Your task to perform on an android device: Open privacy settings Image 0: 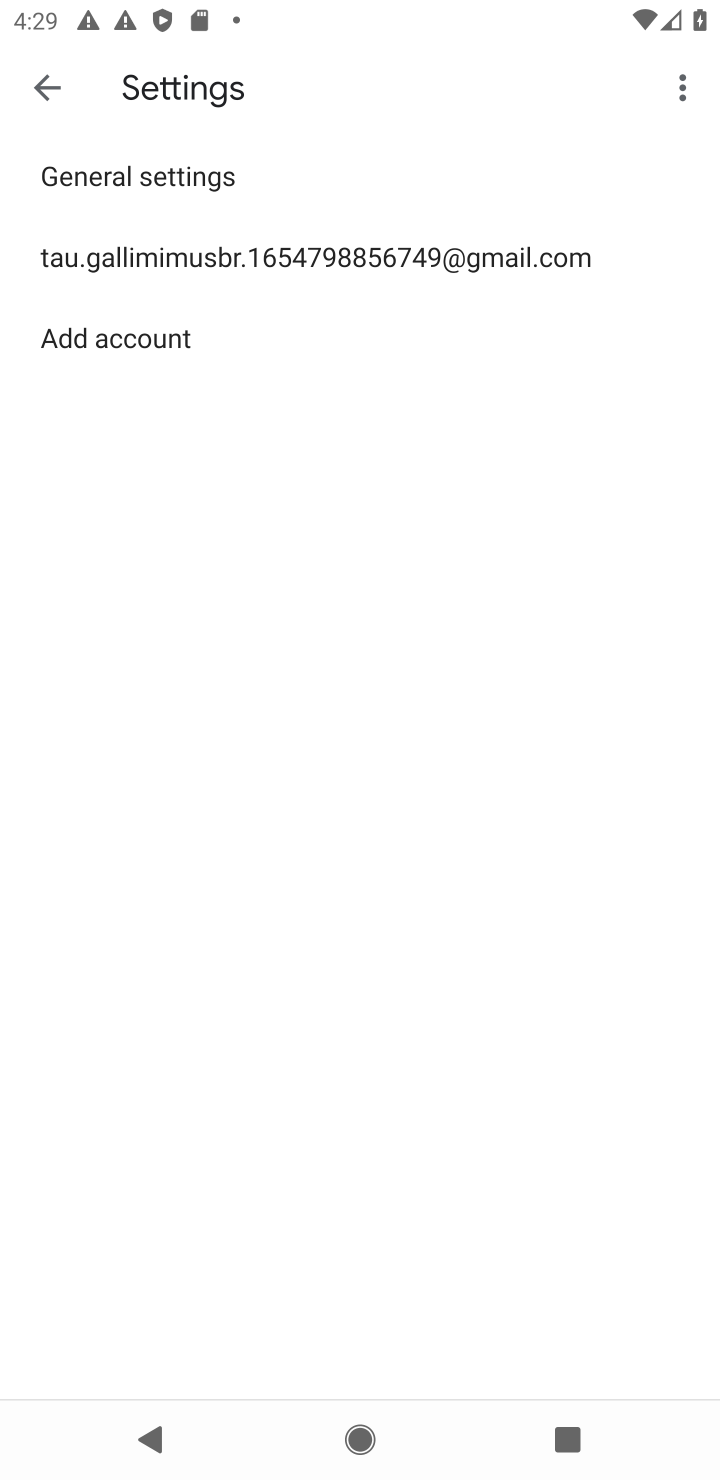
Step 0: press home button
Your task to perform on an android device: Open privacy settings Image 1: 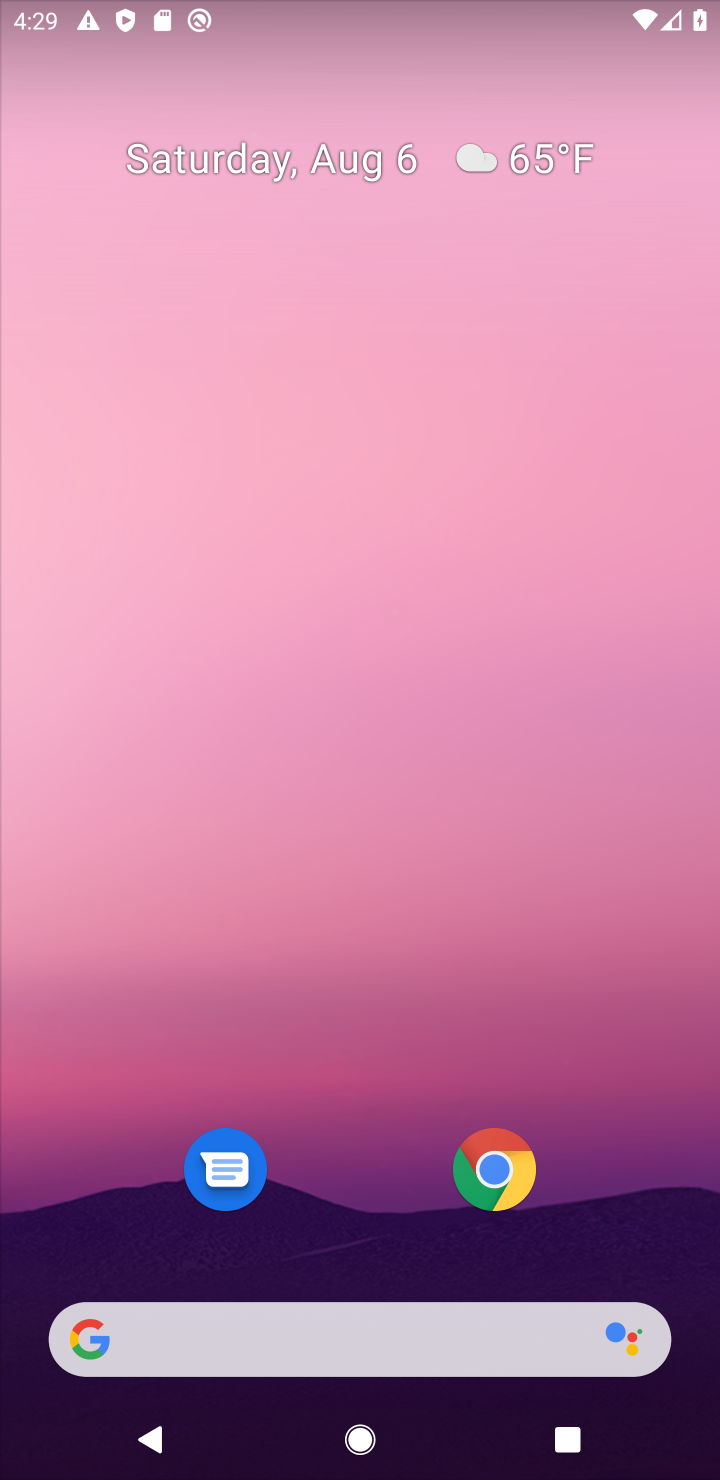
Step 1: drag from (391, 1200) to (390, 733)
Your task to perform on an android device: Open privacy settings Image 2: 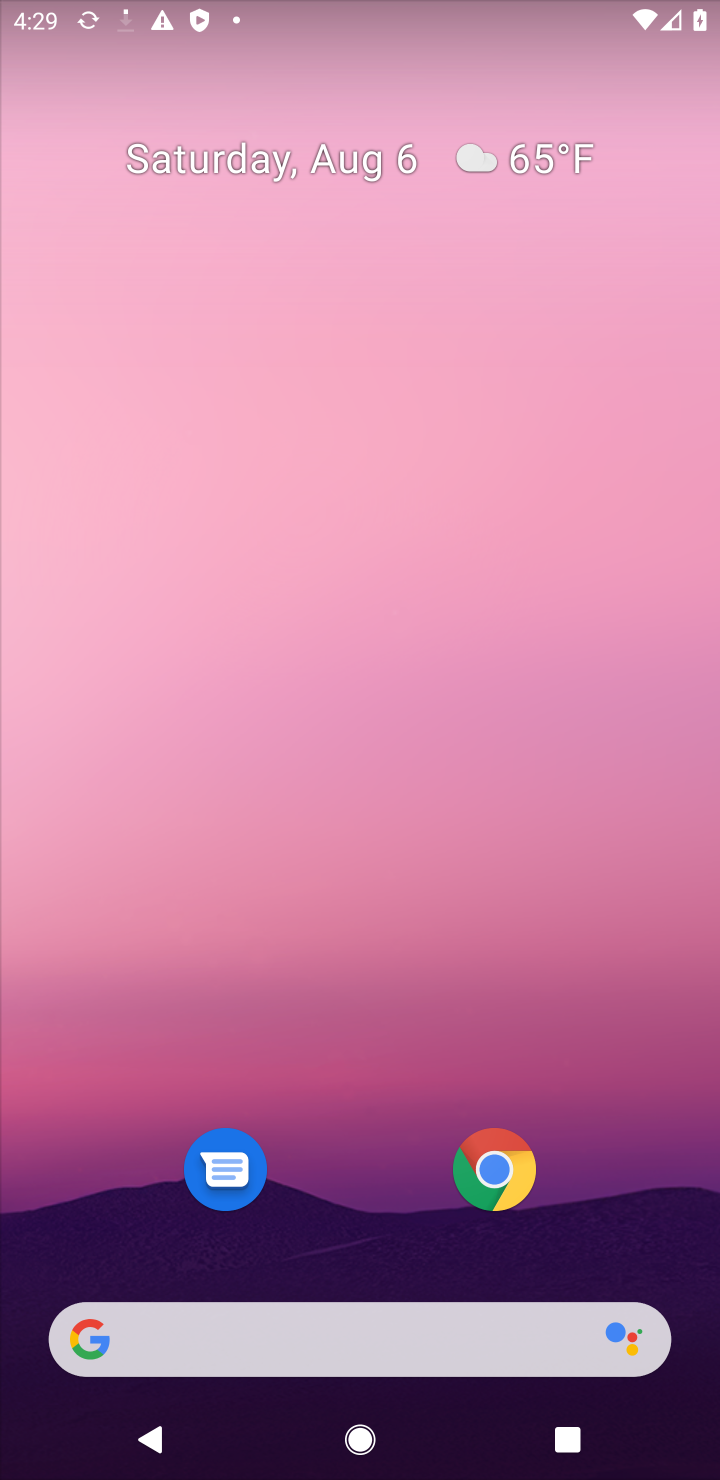
Step 2: drag from (324, 1227) to (290, 578)
Your task to perform on an android device: Open privacy settings Image 3: 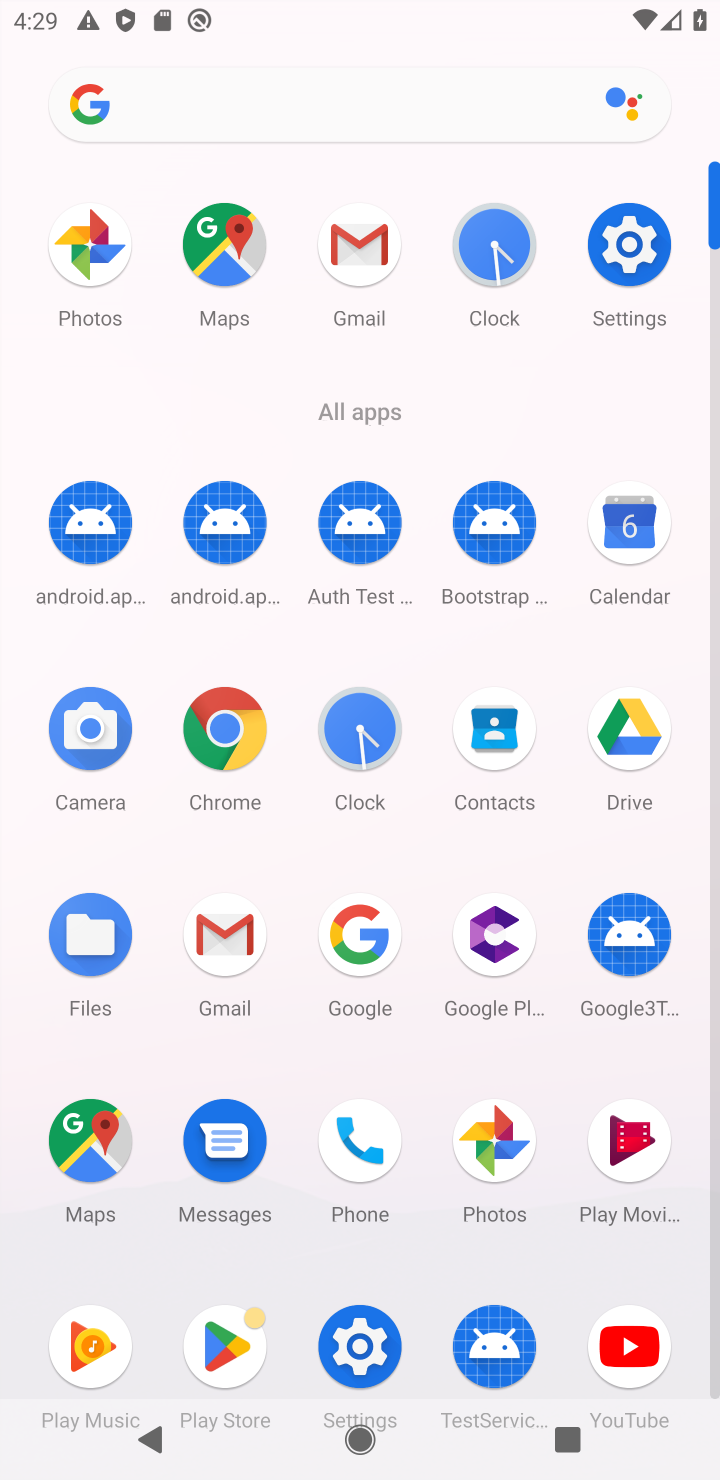
Step 3: click (645, 260)
Your task to perform on an android device: Open privacy settings Image 4: 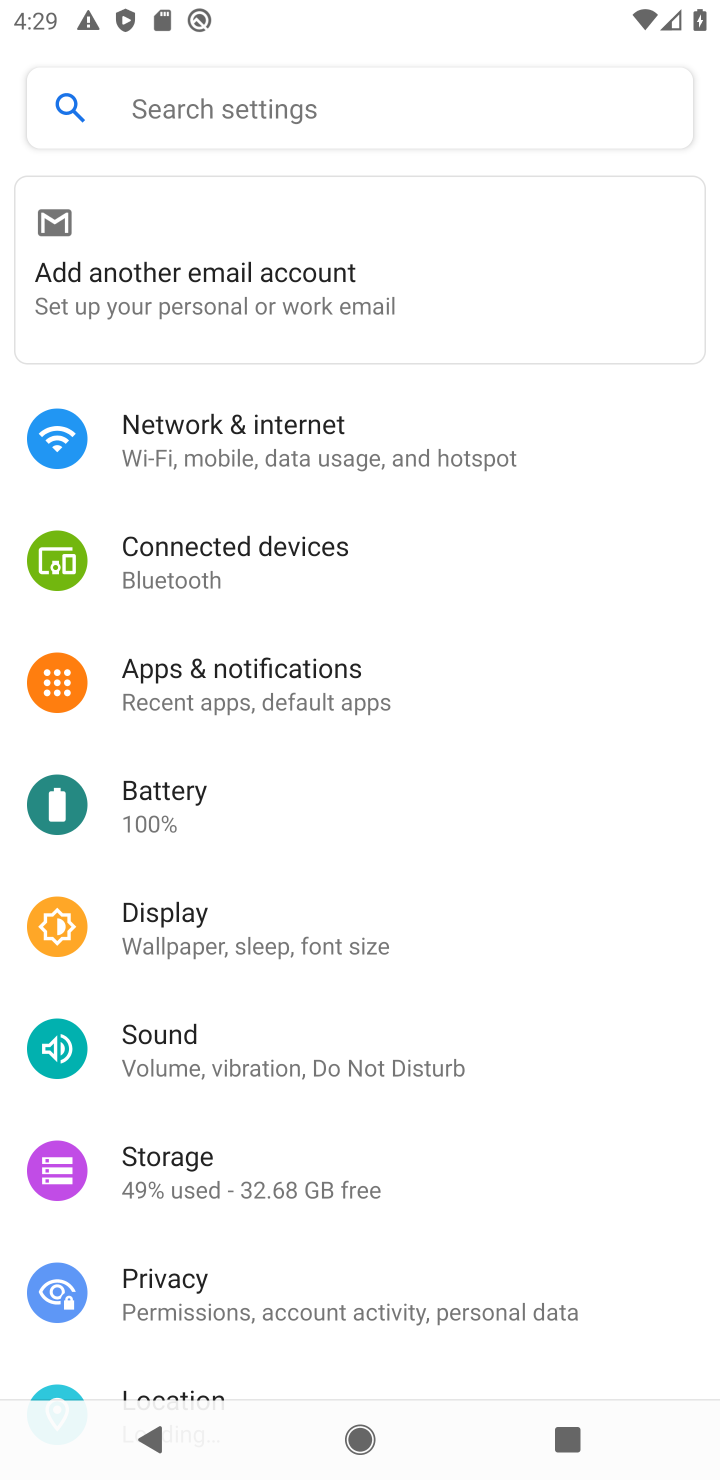
Step 4: click (190, 1303)
Your task to perform on an android device: Open privacy settings Image 5: 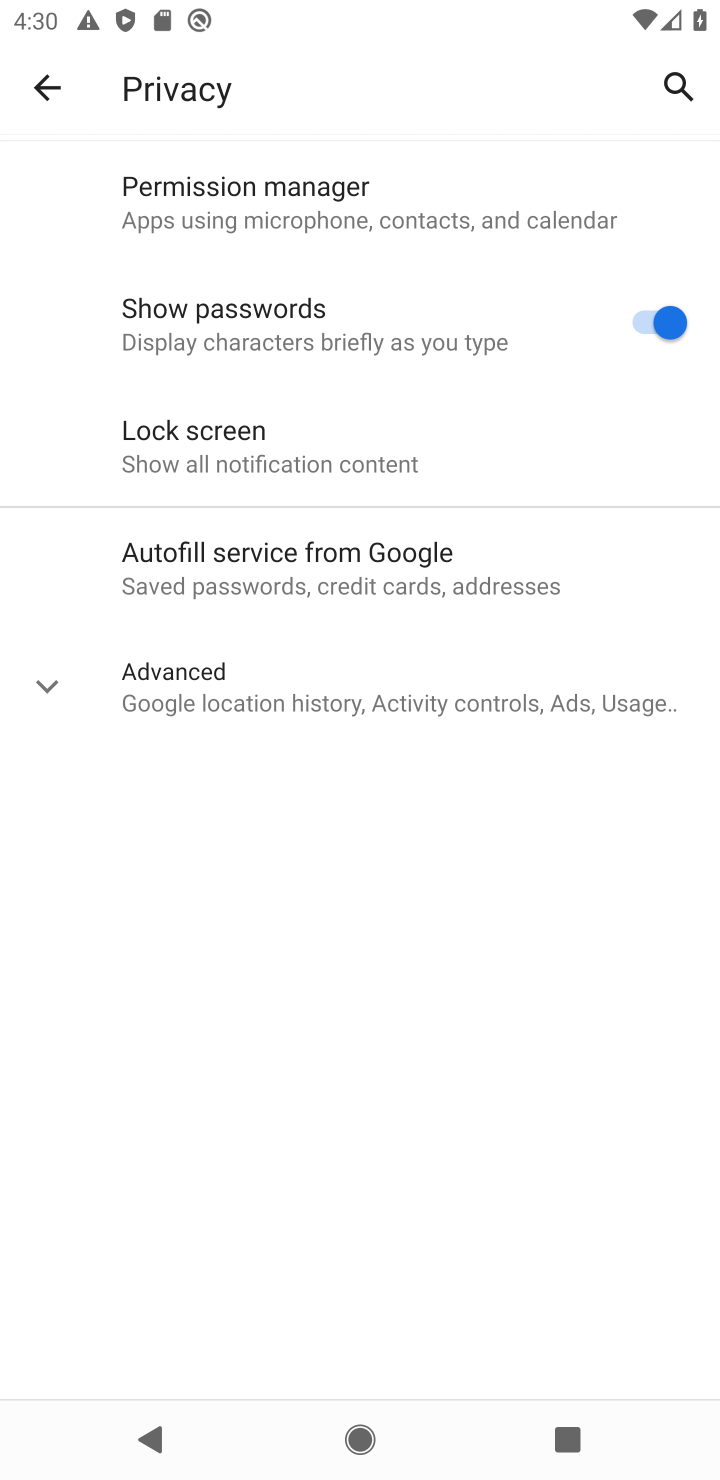
Step 5: task complete